Your task to perform on an android device: turn off data saver in the chrome app Image 0: 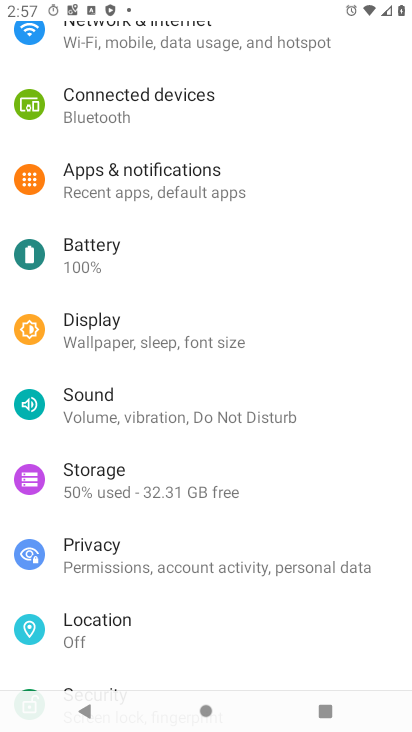
Step 0: press home button
Your task to perform on an android device: turn off data saver in the chrome app Image 1: 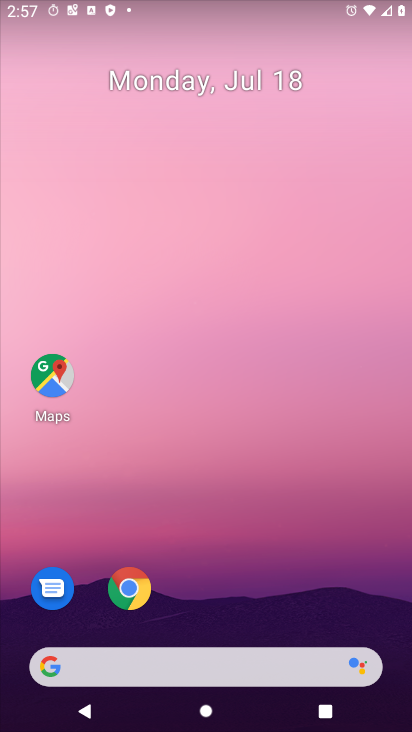
Step 1: drag from (216, 609) to (287, 143)
Your task to perform on an android device: turn off data saver in the chrome app Image 2: 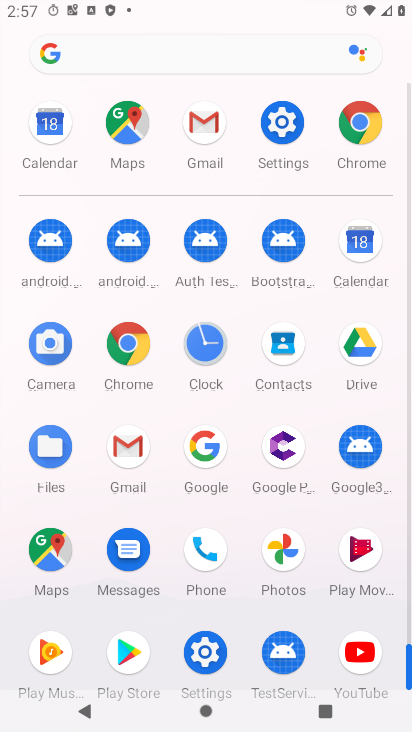
Step 2: click (369, 161)
Your task to perform on an android device: turn off data saver in the chrome app Image 3: 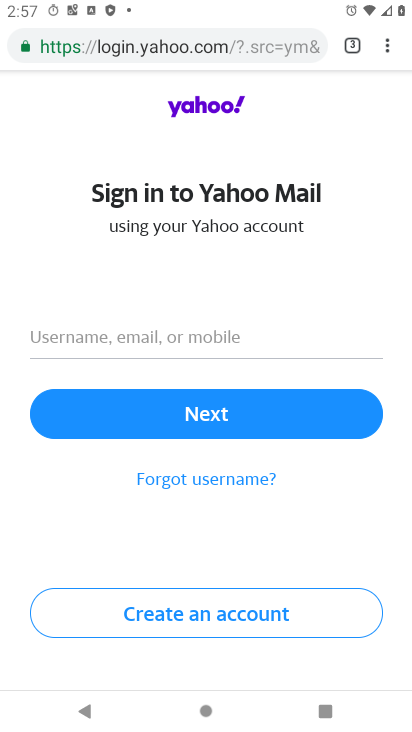
Step 3: click (388, 49)
Your task to perform on an android device: turn off data saver in the chrome app Image 4: 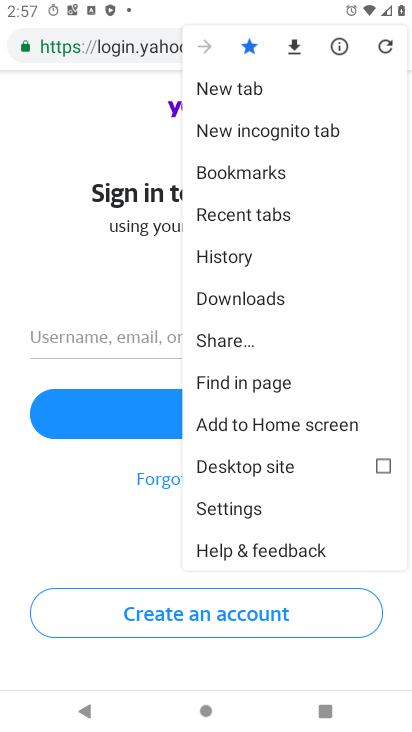
Step 4: click (228, 512)
Your task to perform on an android device: turn off data saver in the chrome app Image 5: 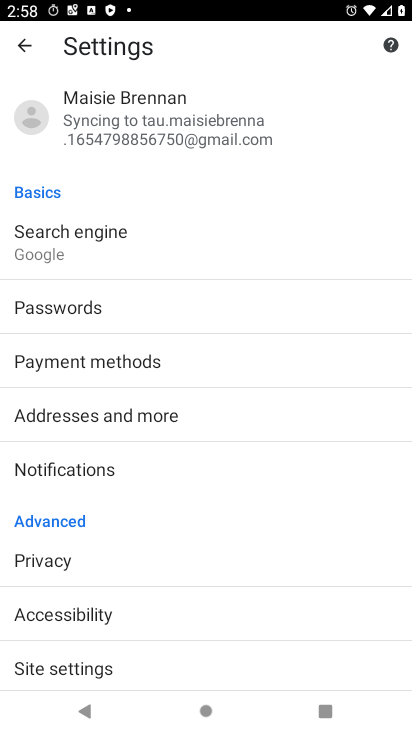
Step 5: drag from (119, 608) to (148, 220)
Your task to perform on an android device: turn off data saver in the chrome app Image 6: 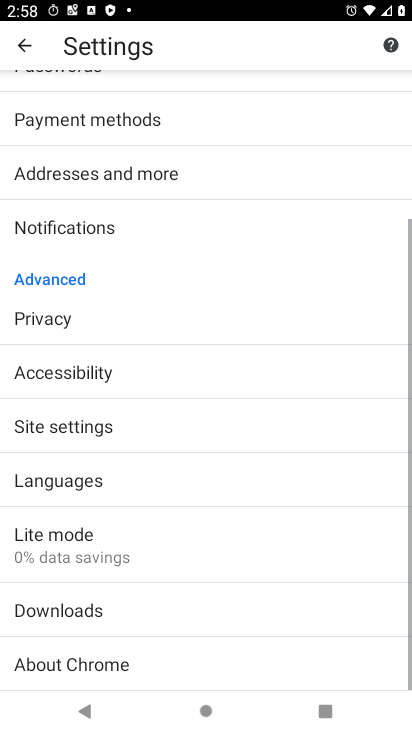
Step 6: click (71, 549)
Your task to perform on an android device: turn off data saver in the chrome app Image 7: 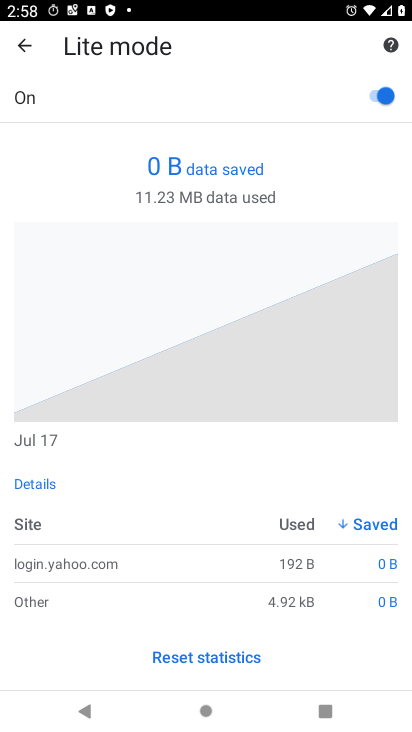
Step 7: click (366, 90)
Your task to perform on an android device: turn off data saver in the chrome app Image 8: 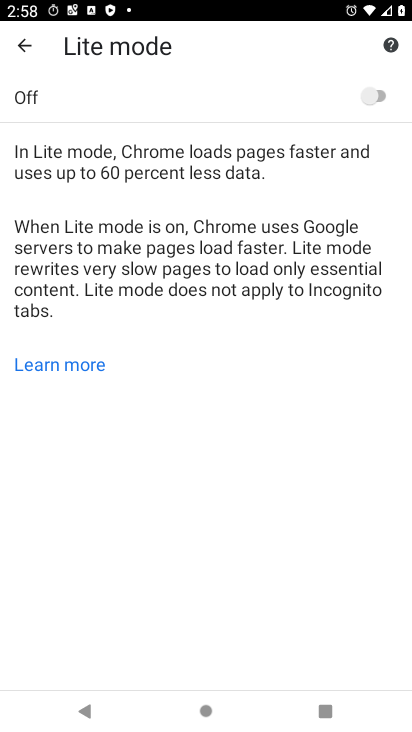
Step 8: task complete